Your task to perform on an android device: Clear the cart on costco. Add "usb-c" to the cart on costco Image 0: 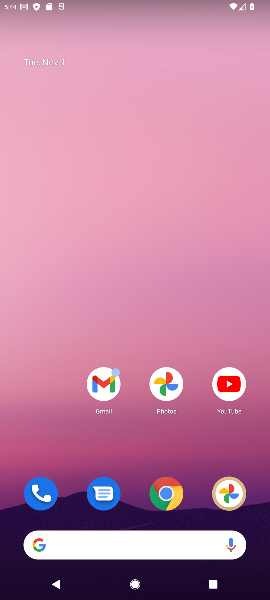
Step 0: click (170, 490)
Your task to perform on an android device: Clear the cart on costco. Add "usb-c" to the cart on costco Image 1: 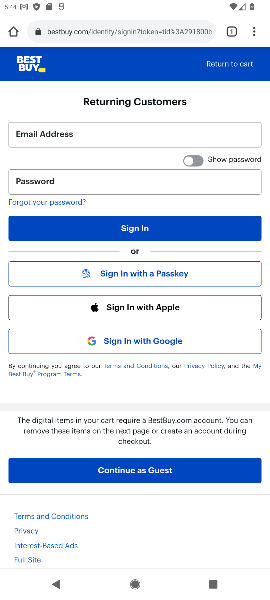
Step 1: click (115, 29)
Your task to perform on an android device: Clear the cart on costco. Add "usb-c" to the cart on costco Image 2: 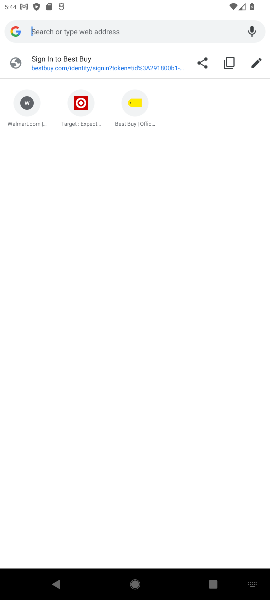
Step 2: type "costco"
Your task to perform on an android device: Clear the cart on costco. Add "usb-c" to the cart on costco Image 3: 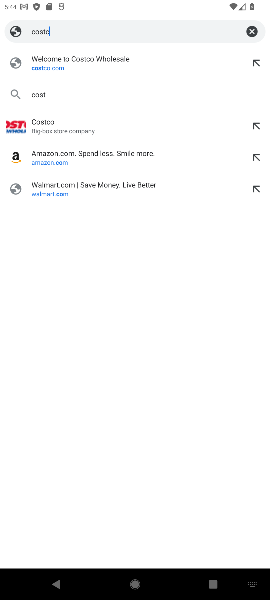
Step 3: press enter
Your task to perform on an android device: Clear the cart on costco. Add "usb-c" to the cart on costco Image 4: 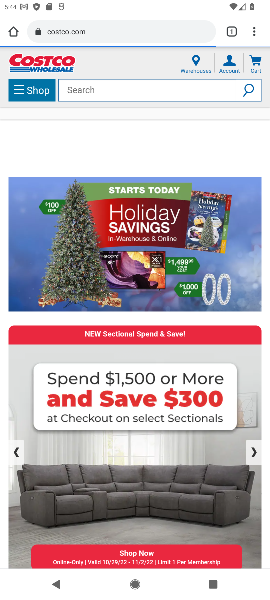
Step 4: click (181, 91)
Your task to perform on an android device: Clear the cart on costco. Add "usb-c" to the cart on costco Image 5: 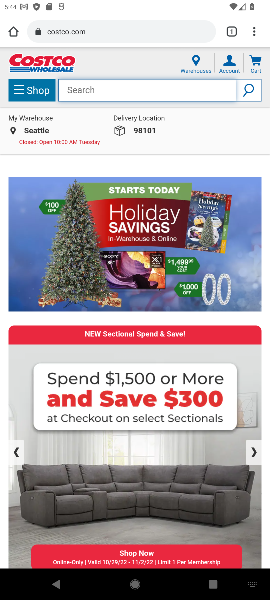
Step 5: click (252, 62)
Your task to perform on an android device: Clear the cart on costco. Add "usb-c" to the cart on costco Image 6: 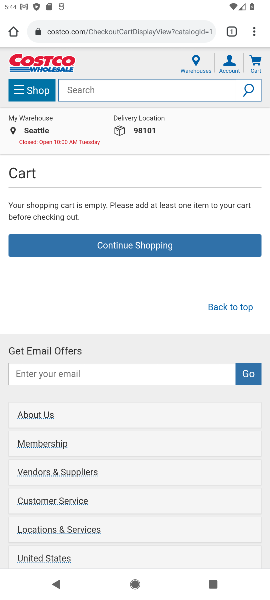
Step 6: click (128, 88)
Your task to perform on an android device: Clear the cart on costco. Add "usb-c" to the cart on costco Image 7: 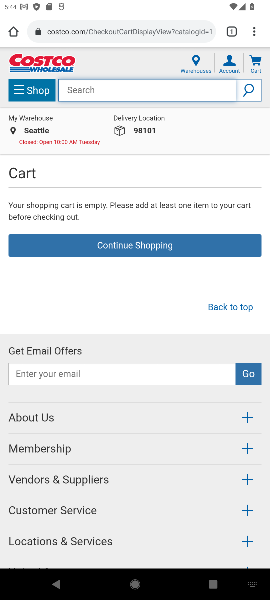
Step 7: type "usb-c"
Your task to perform on an android device: Clear the cart on costco. Add "usb-c" to the cart on costco Image 8: 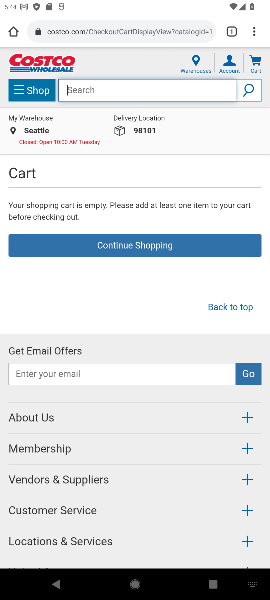
Step 8: press enter
Your task to perform on an android device: Clear the cart on costco. Add "usb-c" to the cart on costco Image 9: 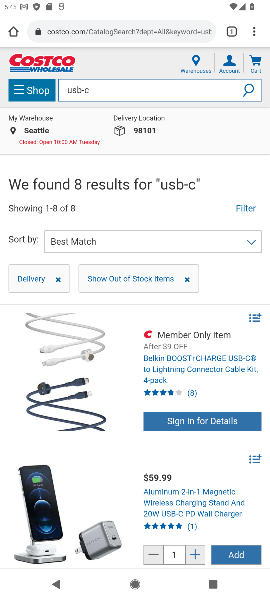
Step 9: click (72, 346)
Your task to perform on an android device: Clear the cart on costco. Add "usb-c" to the cart on costco Image 10: 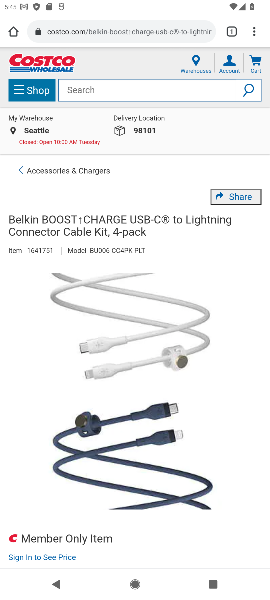
Step 10: drag from (209, 414) to (222, 74)
Your task to perform on an android device: Clear the cart on costco. Add "usb-c" to the cart on costco Image 11: 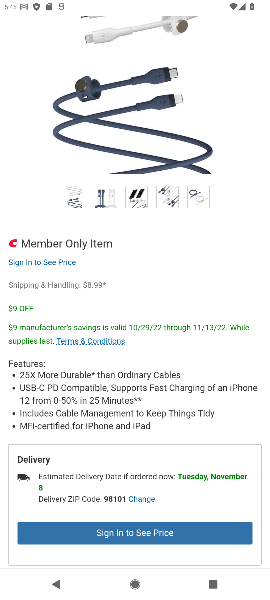
Step 11: drag from (185, 398) to (188, 112)
Your task to perform on an android device: Clear the cart on costco. Add "usb-c" to the cart on costco Image 12: 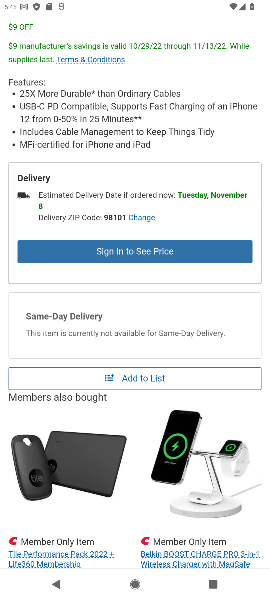
Step 12: drag from (210, 360) to (208, 182)
Your task to perform on an android device: Clear the cart on costco. Add "usb-c" to the cart on costco Image 13: 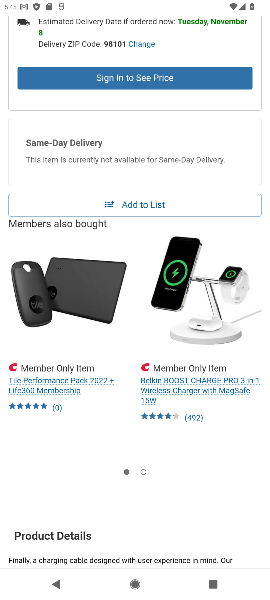
Step 13: click (159, 203)
Your task to perform on an android device: Clear the cart on costco. Add "usb-c" to the cart on costco Image 14: 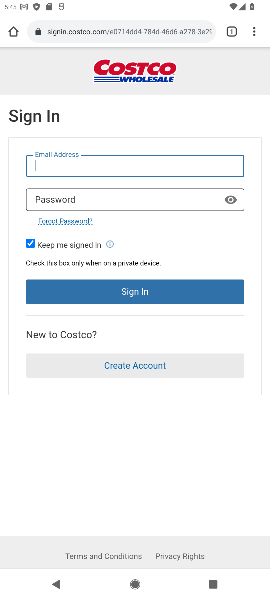
Step 14: task complete